Your task to perform on an android device: see tabs open on other devices in the chrome app Image 0: 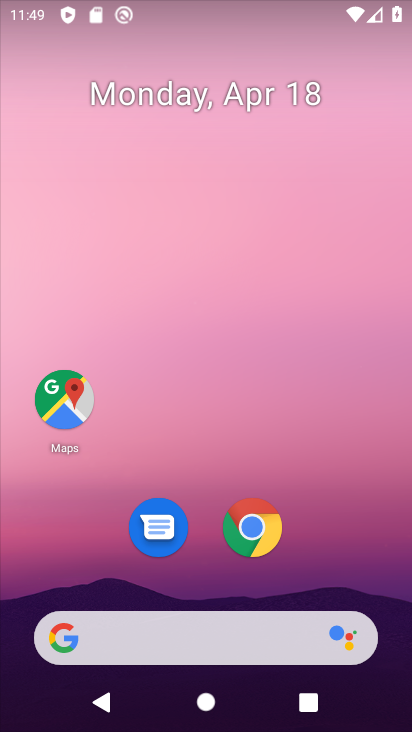
Step 0: click (242, 526)
Your task to perform on an android device: see tabs open on other devices in the chrome app Image 1: 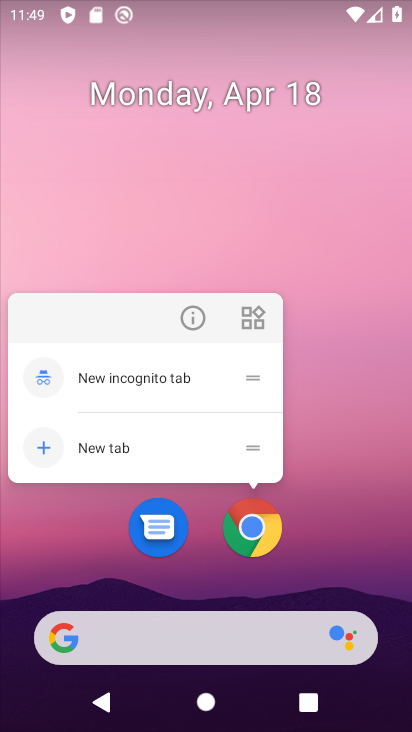
Step 1: click (229, 522)
Your task to perform on an android device: see tabs open on other devices in the chrome app Image 2: 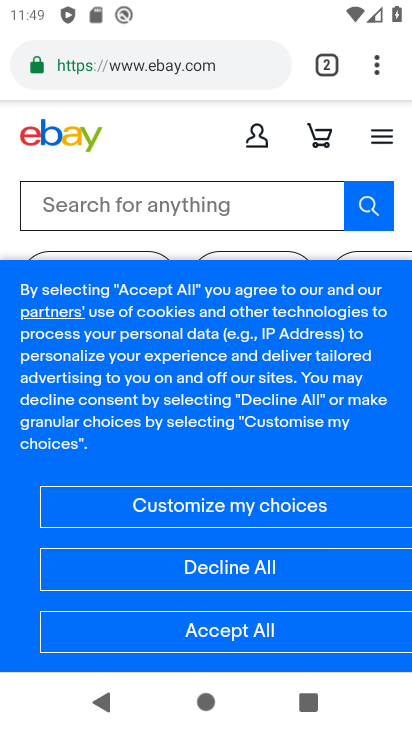
Step 2: click (372, 62)
Your task to perform on an android device: see tabs open on other devices in the chrome app Image 3: 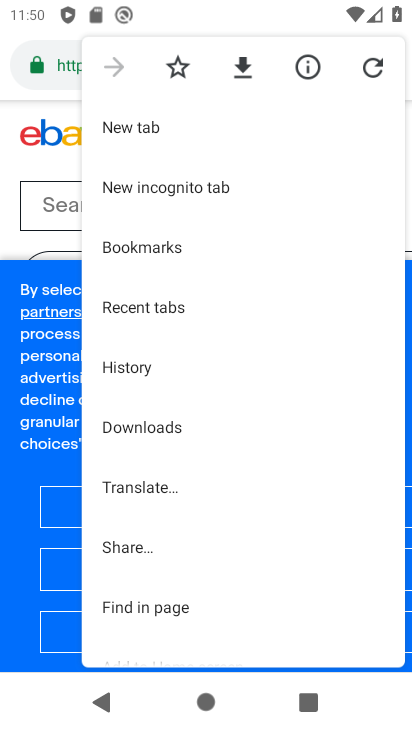
Step 3: click (230, 296)
Your task to perform on an android device: see tabs open on other devices in the chrome app Image 4: 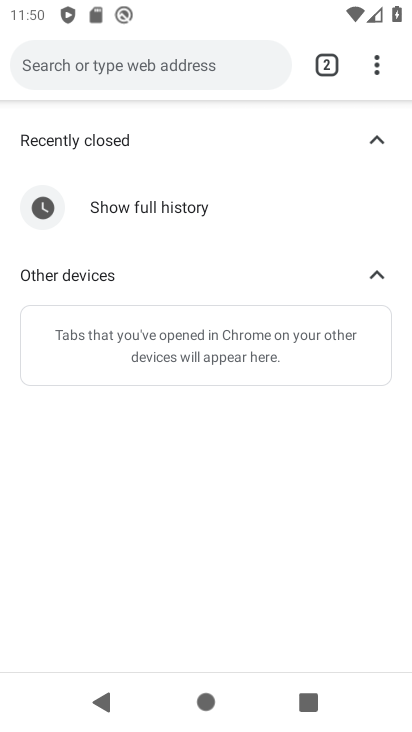
Step 4: task complete